Your task to perform on an android device: Open Amazon Image 0: 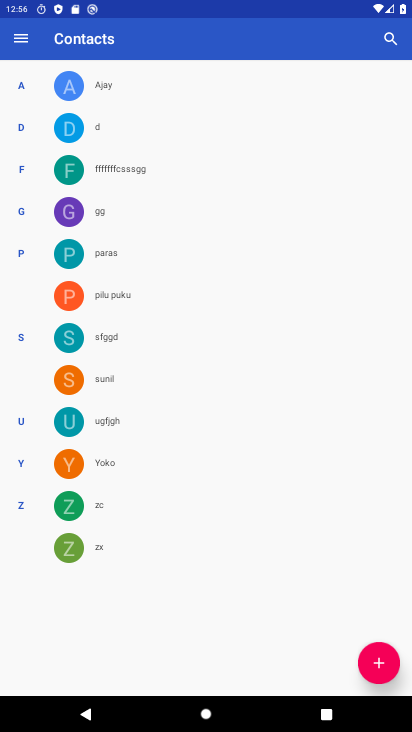
Step 0: press home button
Your task to perform on an android device: Open Amazon Image 1: 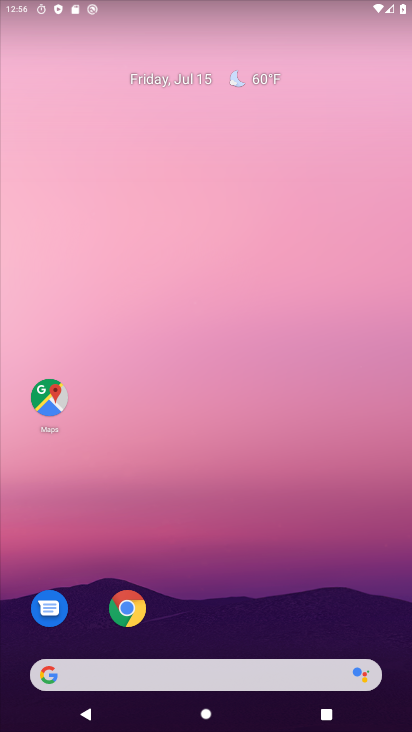
Step 1: click (140, 599)
Your task to perform on an android device: Open Amazon Image 2: 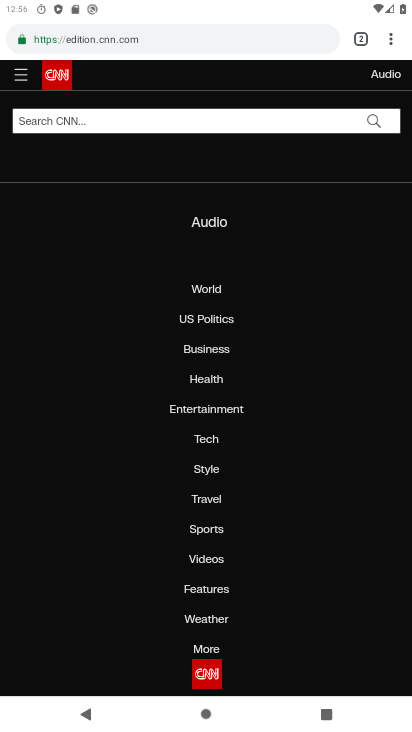
Step 2: click (150, 49)
Your task to perform on an android device: Open Amazon Image 3: 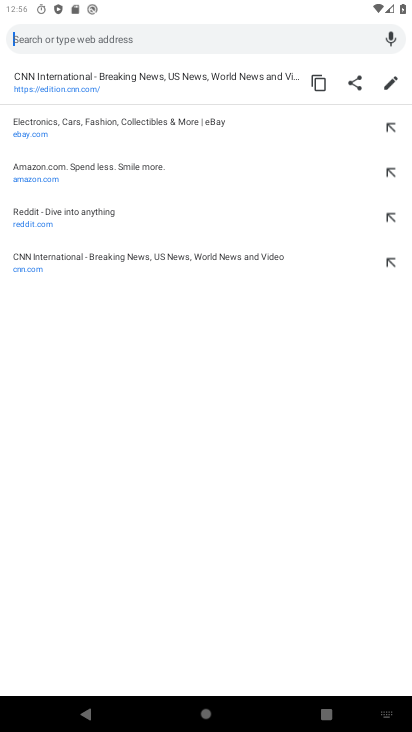
Step 3: type "Amazon"
Your task to perform on an android device: Open Amazon Image 4: 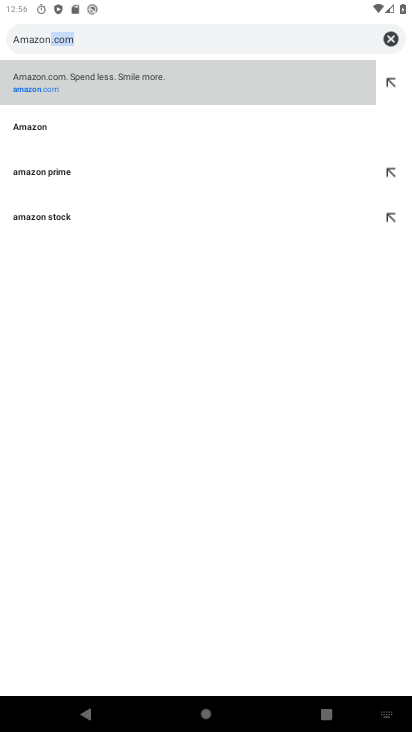
Step 4: click (323, 93)
Your task to perform on an android device: Open Amazon Image 5: 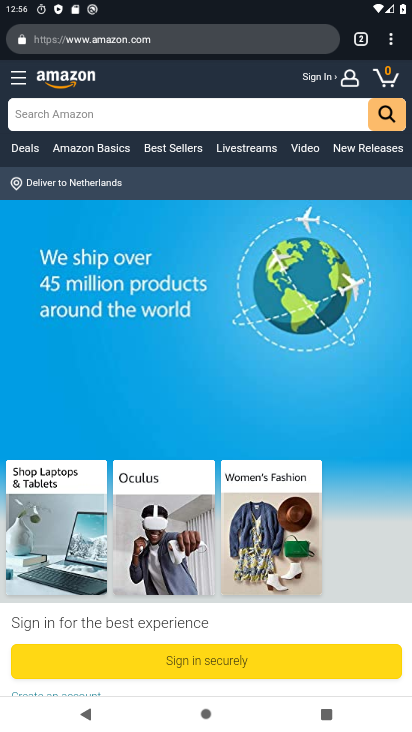
Step 5: task complete